Your task to perform on an android device: Open settings Image 0: 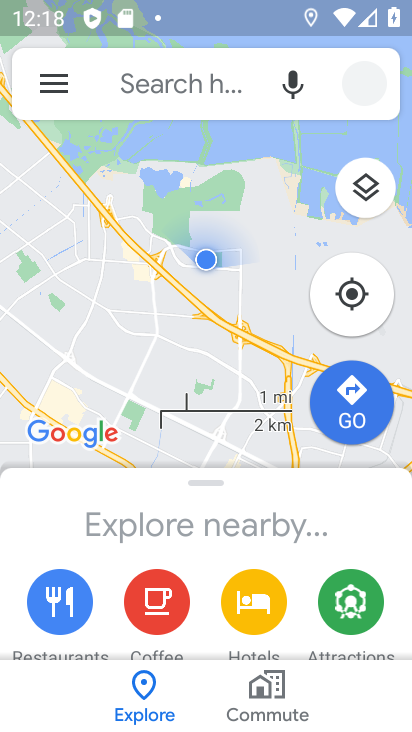
Step 0: press home button
Your task to perform on an android device: Open settings Image 1: 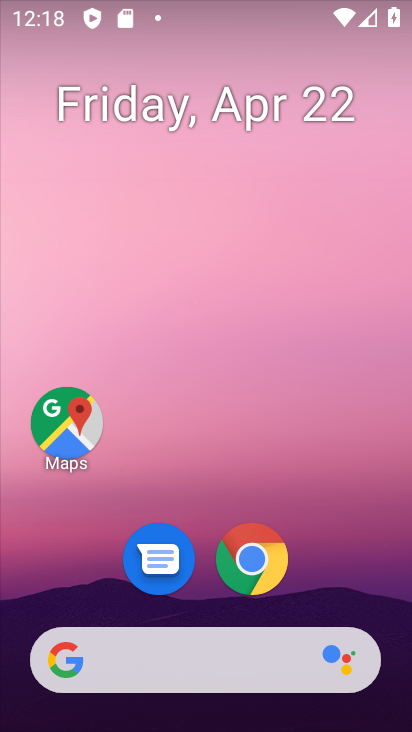
Step 1: drag from (345, 563) to (347, 154)
Your task to perform on an android device: Open settings Image 2: 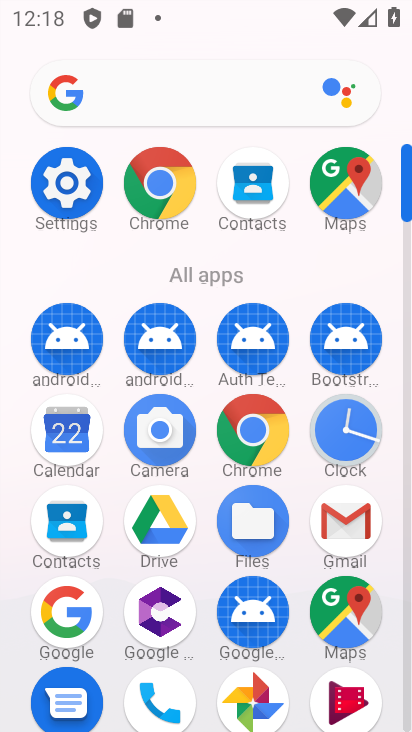
Step 2: click (61, 186)
Your task to perform on an android device: Open settings Image 3: 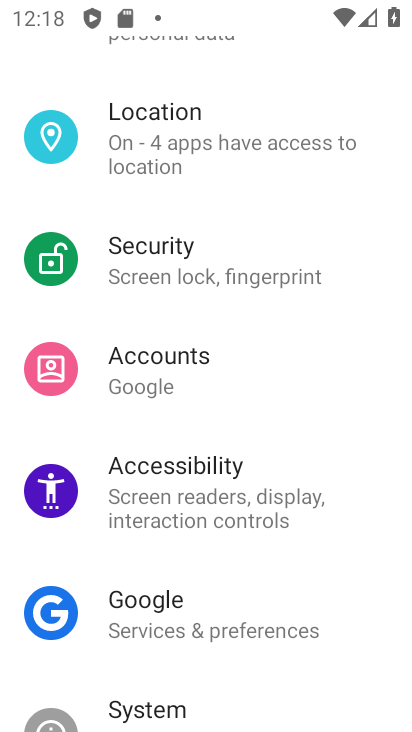
Step 3: task complete